Your task to perform on an android device: Search for vegetarian restaurants on Maps Image 0: 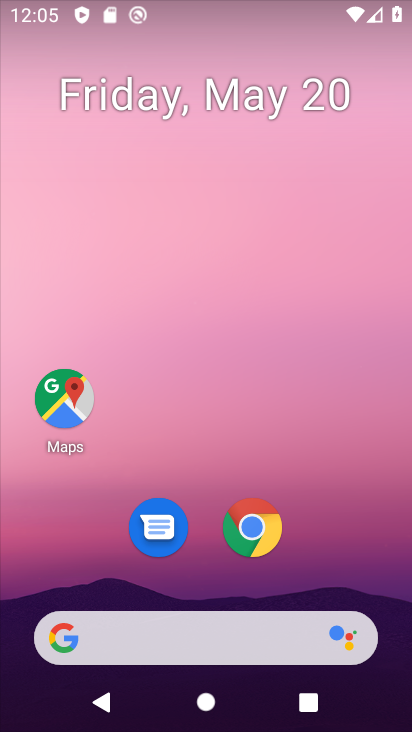
Step 0: press home button
Your task to perform on an android device: Search for vegetarian restaurants on Maps Image 1: 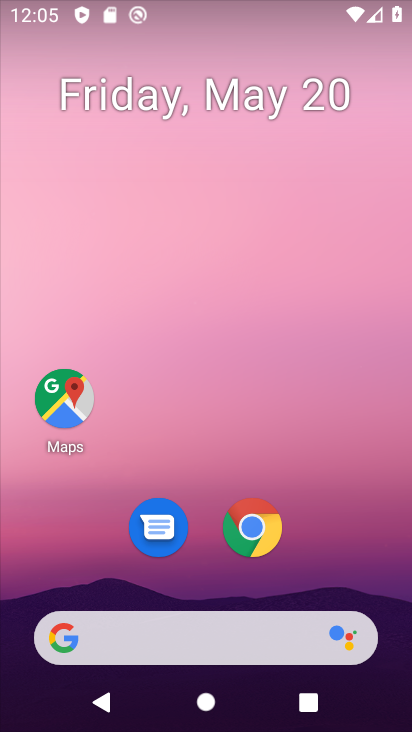
Step 1: click (40, 372)
Your task to perform on an android device: Search for vegetarian restaurants on Maps Image 2: 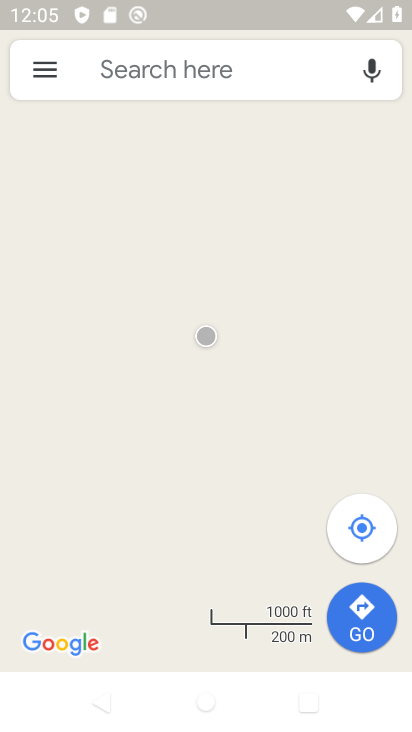
Step 2: click (196, 81)
Your task to perform on an android device: Search for vegetarian restaurants on Maps Image 3: 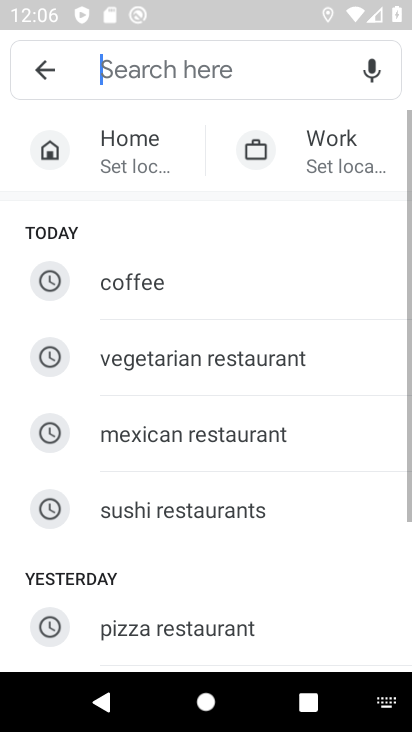
Step 3: type "vegetarian restaurants"
Your task to perform on an android device: Search for vegetarian restaurants on Maps Image 4: 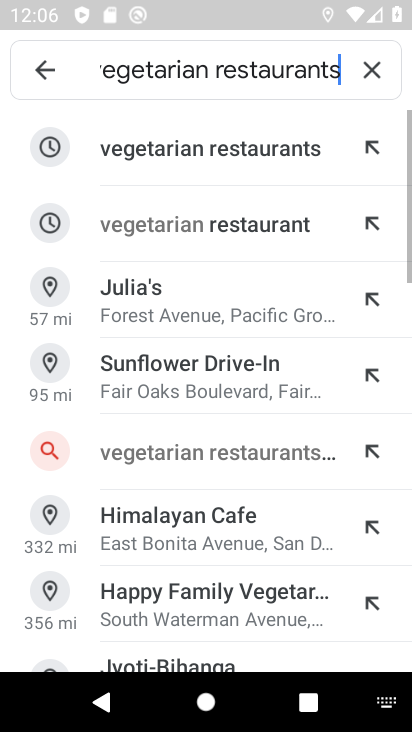
Step 4: click (235, 132)
Your task to perform on an android device: Search for vegetarian restaurants on Maps Image 5: 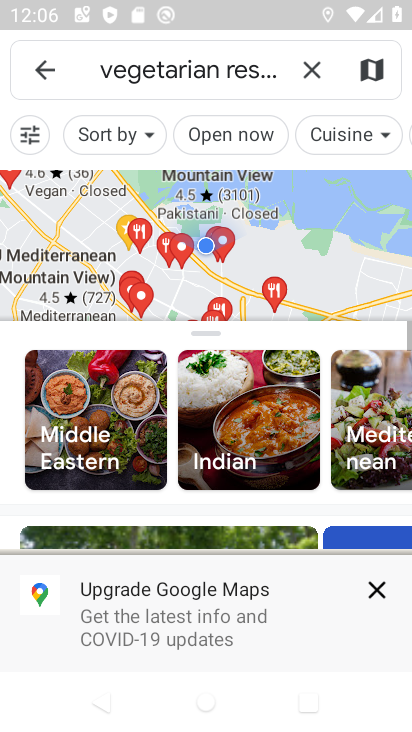
Step 5: task complete